Your task to perform on an android device: Show me recent news Image 0: 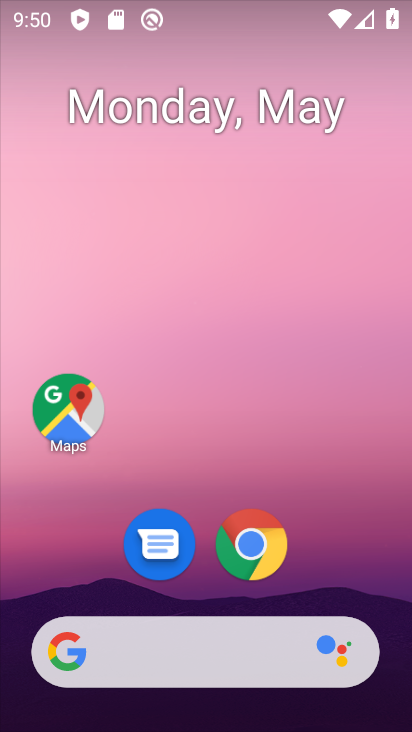
Step 0: click (221, 30)
Your task to perform on an android device: Show me recent news Image 1: 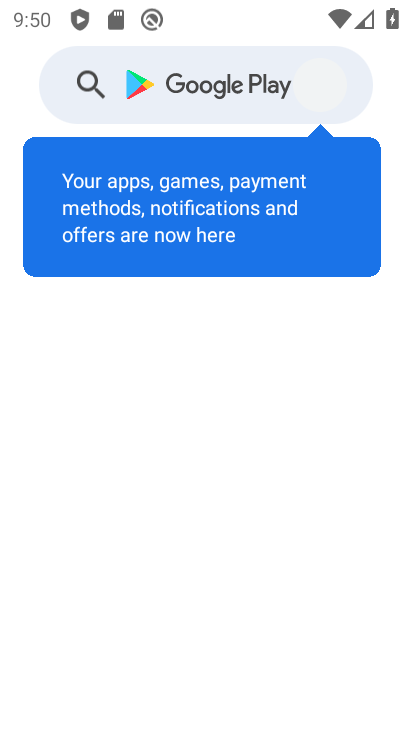
Step 1: task complete